Your task to perform on an android device: Open settings on Google Maps Image 0: 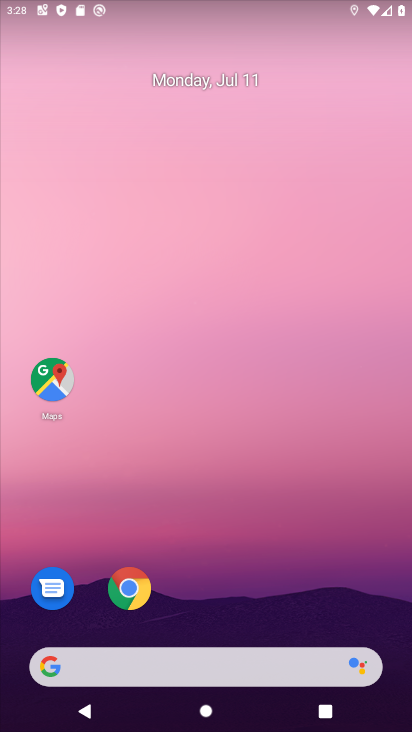
Step 0: click (42, 380)
Your task to perform on an android device: Open settings on Google Maps Image 1: 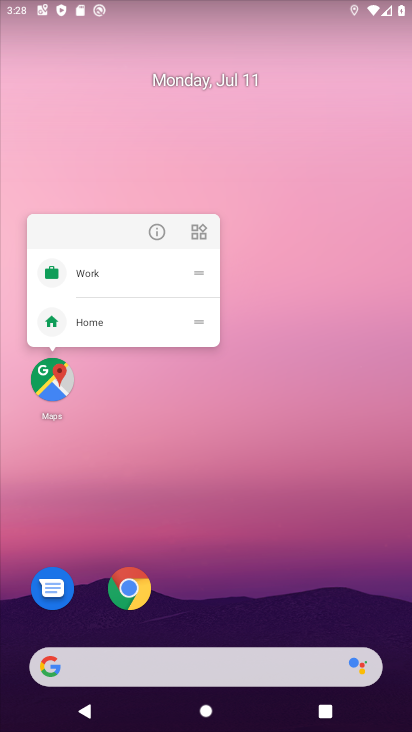
Step 1: click (42, 380)
Your task to perform on an android device: Open settings on Google Maps Image 2: 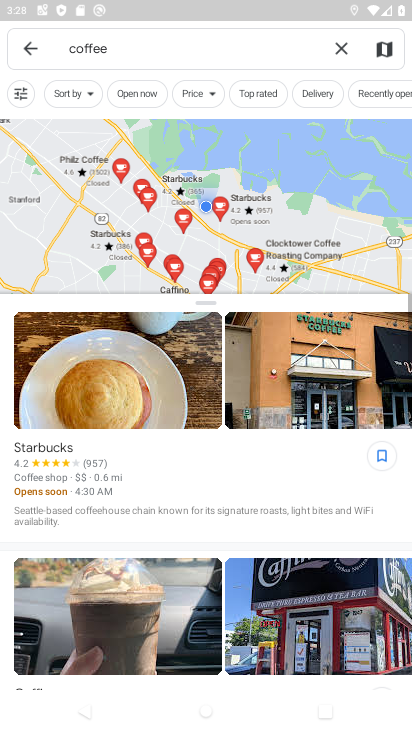
Step 2: click (338, 50)
Your task to perform on an android device: Open settings on Google Maps Image 3: 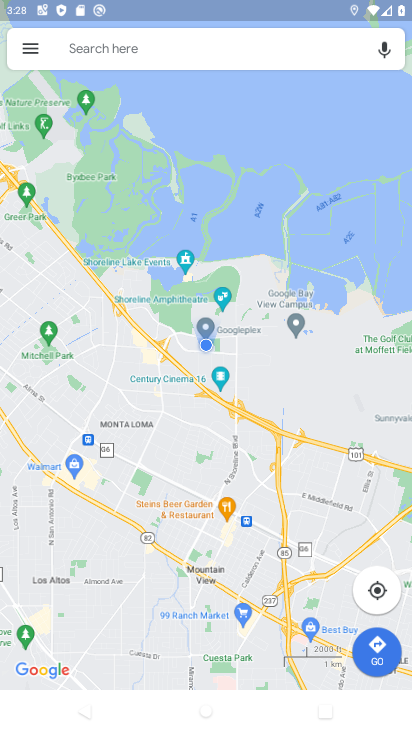
Step 3: click (31, 50)
Your task to perform on an android device: Open settings on Google Maps Image 4: 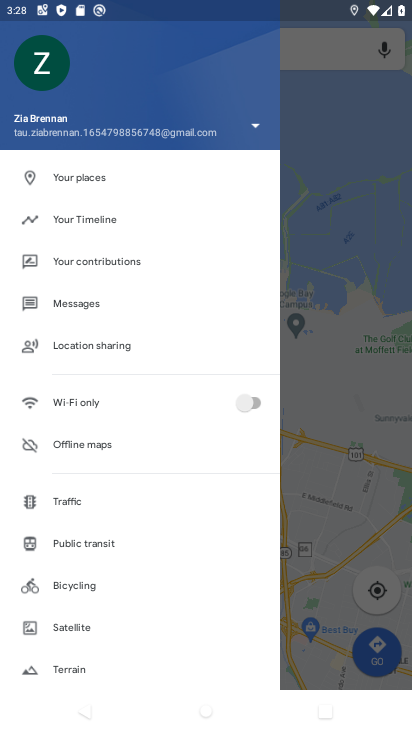
Step 4: drag from (84, 655) to (80, 346)
Your task to perform on an android device: Open settings on Google Maps Image 5: 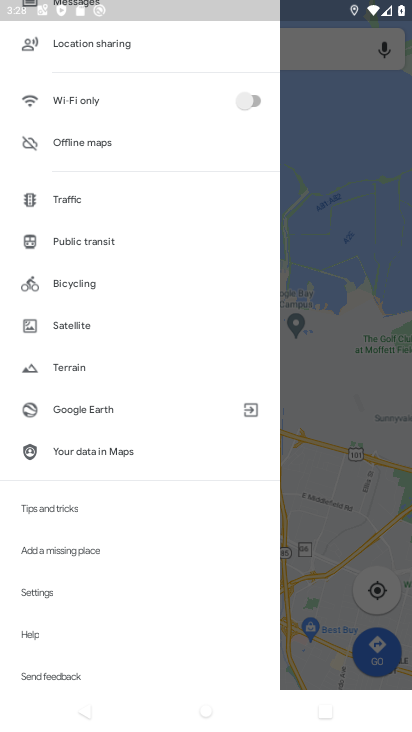
Step 5: click (38, 591)
Your task to perform on an android device: Open settings on Google Maps Image 6: 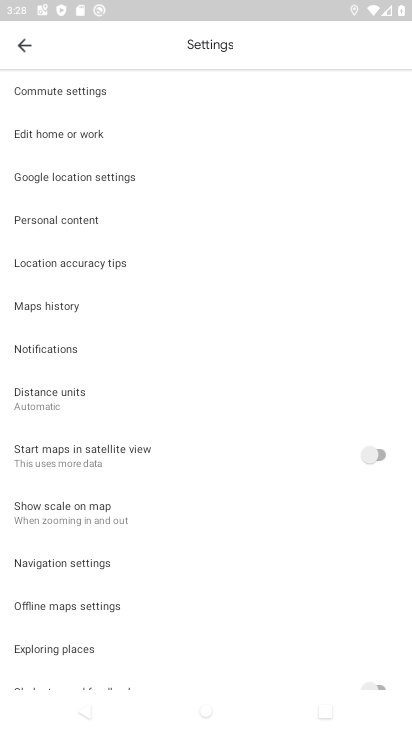
Step 6: task complete